Your task to perform on an android device: turn on data saver in the chrome app Image 0: 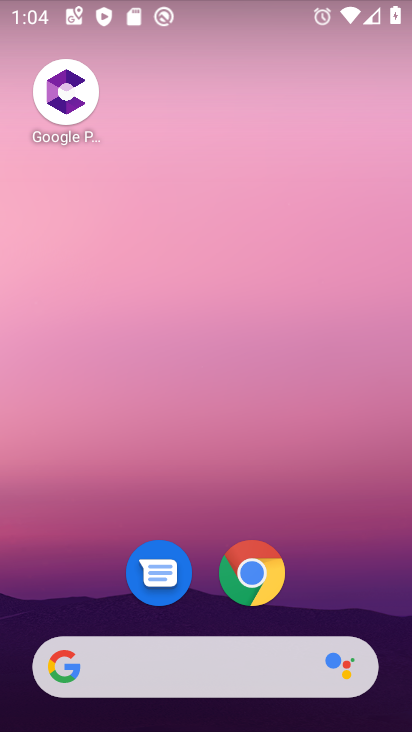
Step 0: click (256, 579)
Your task to perform on an android device: turn on data saver in the chrome app Image 1: 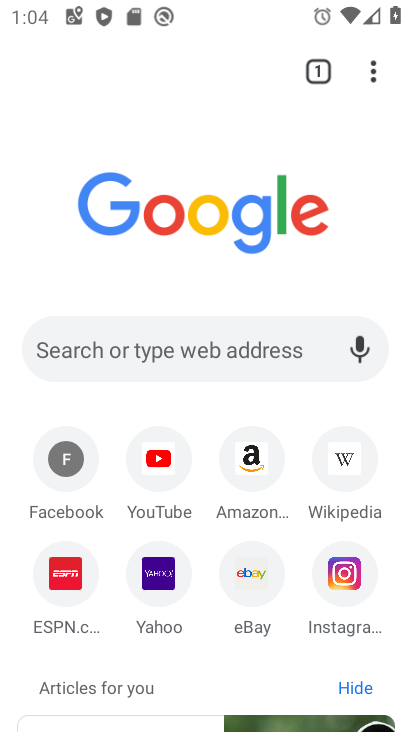
Step 1: drag from (370, 79) to (229, 596)
Your task to perform on an android device: turn on data saver in the chrome app Image 2: 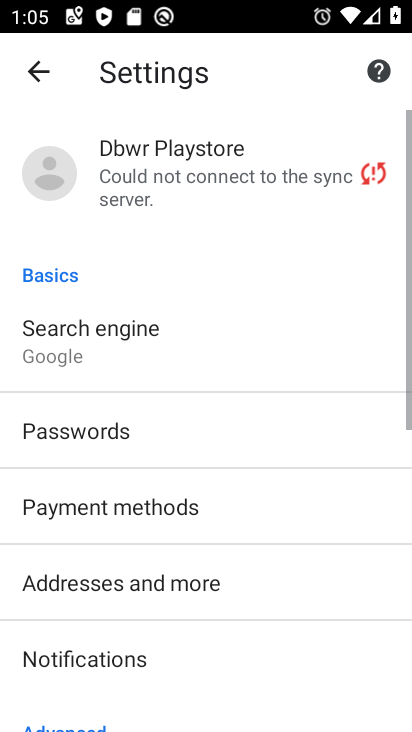
Step 2: drag from (157, 671) to (228, 311)
Your task to perform on an android device: turn on data saver in the chrome app Image 3: 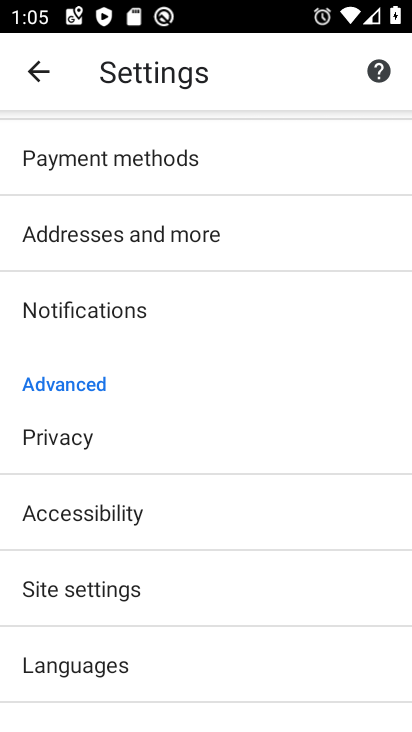
Step 3: drag from (146, 617) to (198, 362)
Your task to perform on an android device: turn on data saver in the chrome app Image 4: 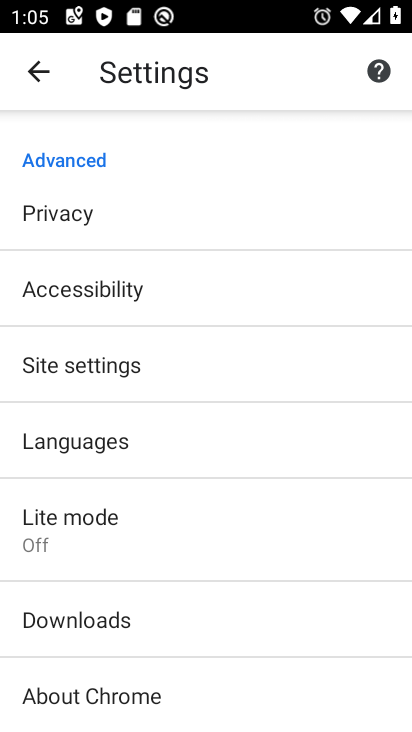
Step 4: click (70, 519)
Your task to perform on an android device: turn on data saver in the chrome app Image 5: 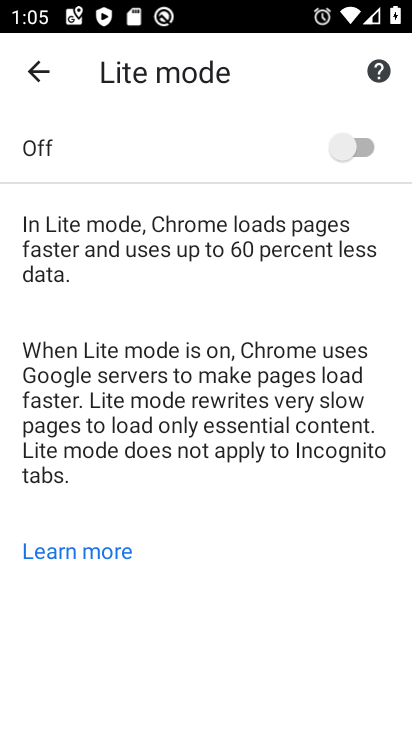
Step 5: click (369, 153)
Your task to perform on an android device: turn on data saver in the chrome app Image 6: 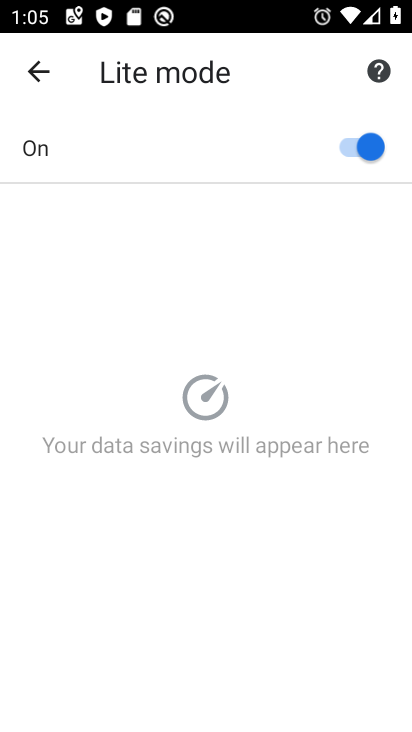
Step 6: task complete